Your task to perform on an android device: turn off notifications settings in the gmail app Image 0: 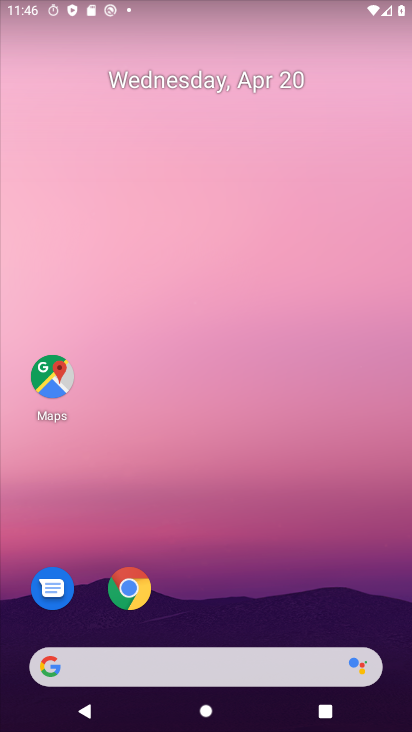
Step 0: drag from (216, 614) to (235, 27)
Your task to perform on an android device: turn off notifications settings in the gmail app Image 1: 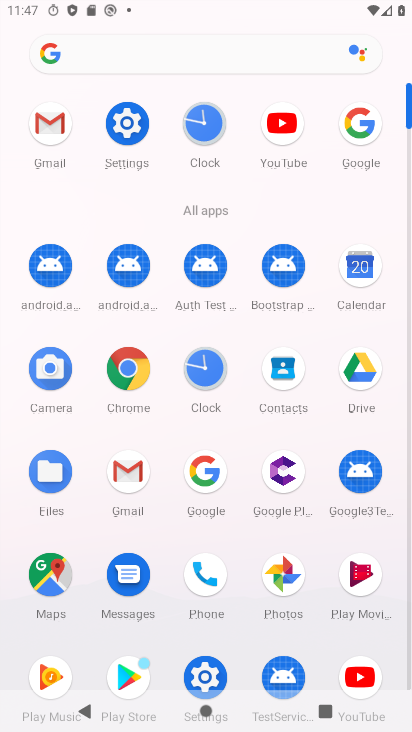
Step 1: click (202, 669)
Your task to perform on an android device: turn off notifications settings in the gmail app Image 2: 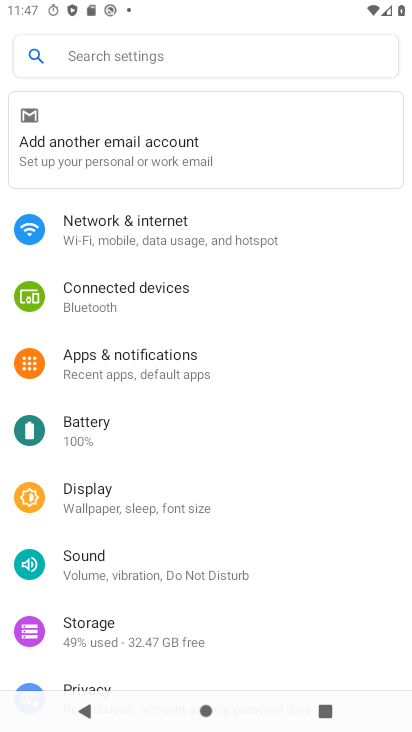
Step 2: click (210, 351)
Your task to perform on an android device: turn off notifications settings in the gmail app Image 3: 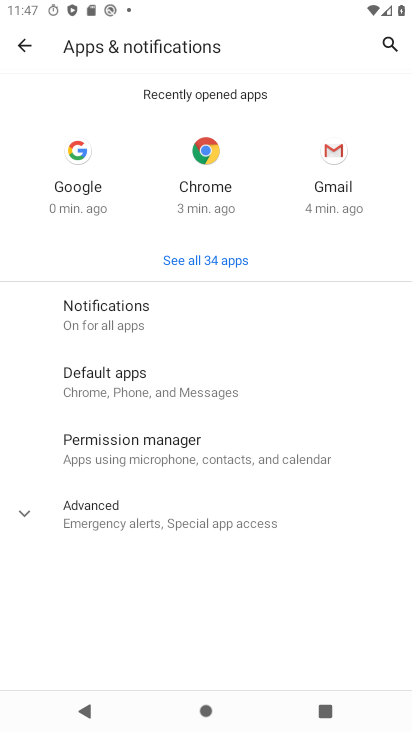
Step 3: click (164, 313)
Your task to perform on an android device: turn off notifications settings in the gmail app Image 4: 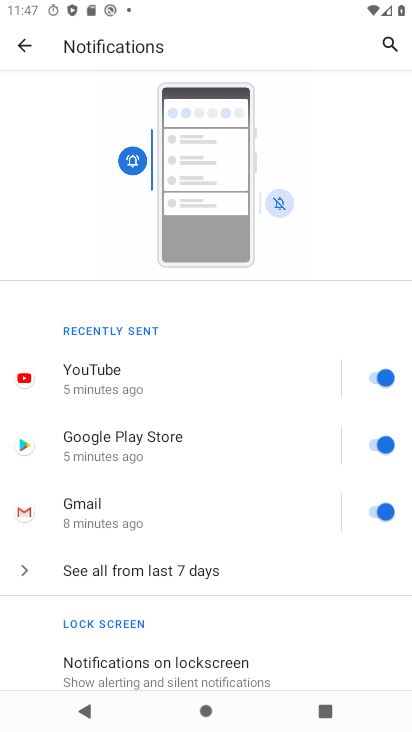
Step 4: click (381, 374)
Your task to perform on an android device: turn off notifications settings in the gmail app Image 5: 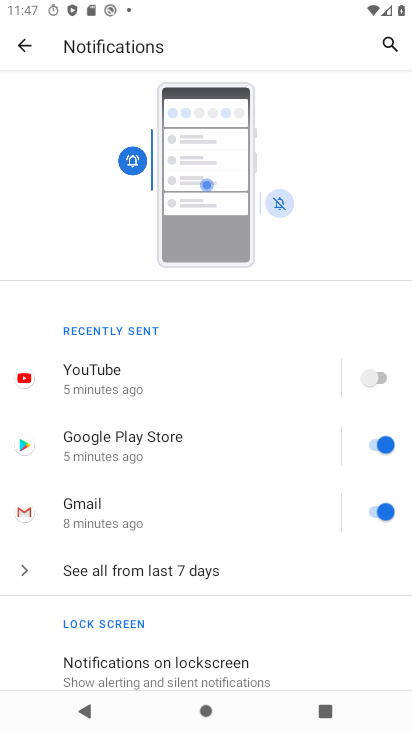
Step 5: click (381, 445)
Your task to perform on an android device: turn off notifications settings in the gmail app Image 6: 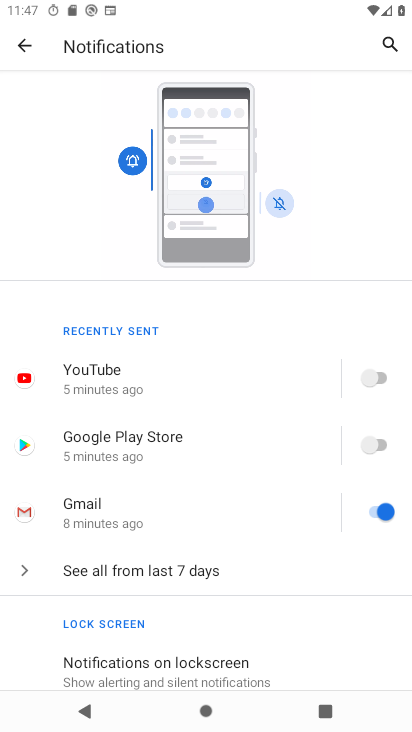
Step 6: click (379, 507)
Your task to perform on an android device: turn off notifications settings in the gmail app Image 7: 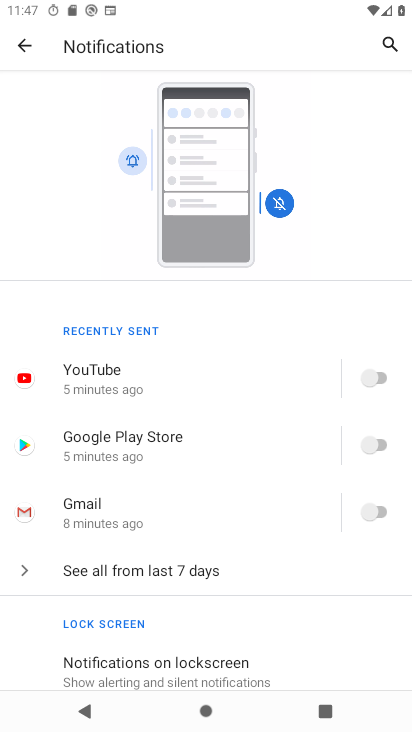
Step 7: drag from (245, 631) to (243, 312)
Your task to perform on an android device: turn off notifications settings in the gmail app Image 8: 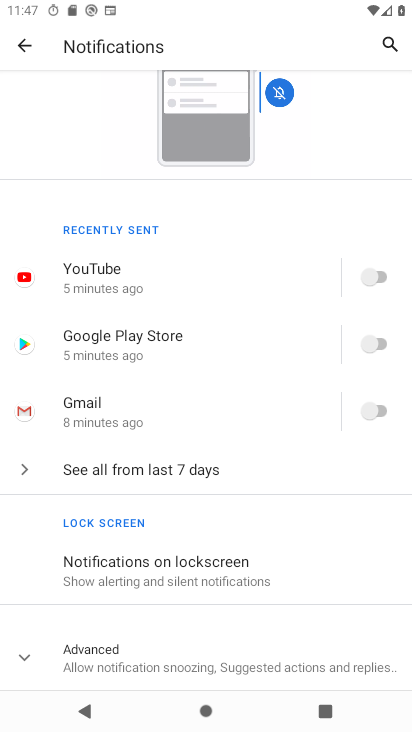
Step 8: click (279, 561)
Your task to perform on an android device: turn off notifications settings in the gmail app Image 9: 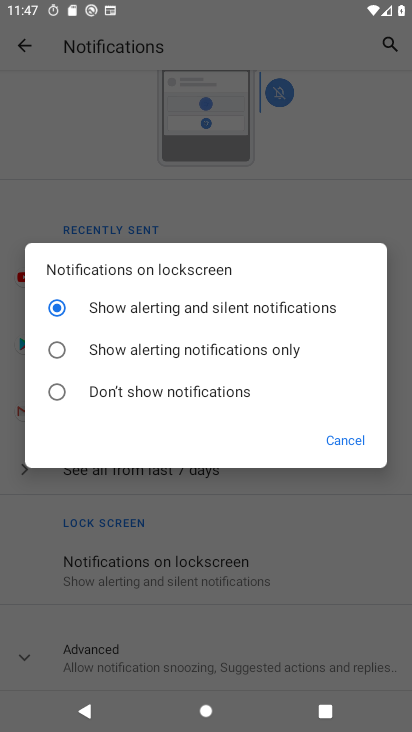
Step 9: click (60, 346)
Your task to perform on an android device: turn off notifications settings in the gmail app Image 10: 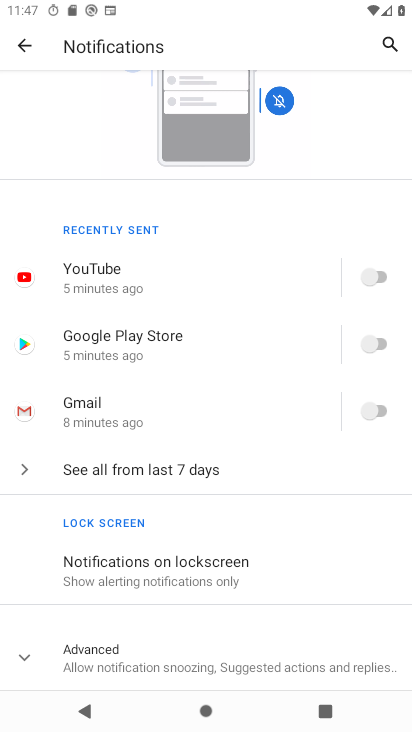
Step 10: task complete